Your task to perform on an android device: Open Yahoo.com Image 0: 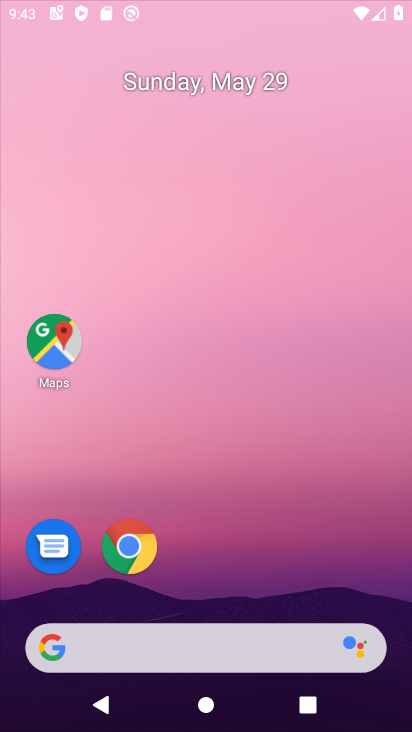
Step 0: click (227, 214)
Your task to perform on an android device: Open Yahoo.com Image 1: 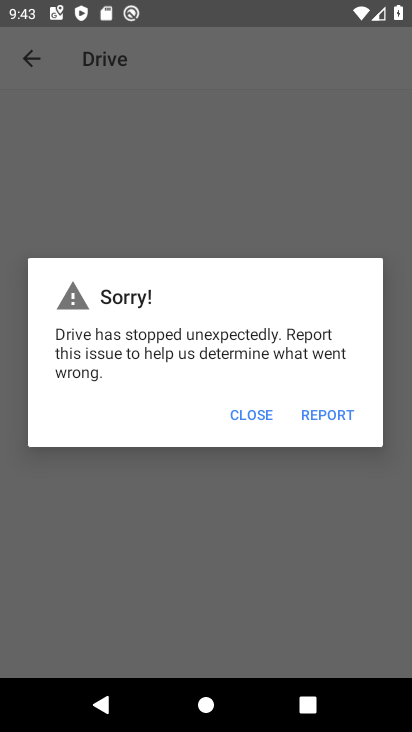
Step 1: press home button
Your task to perform on an android device: Open Yahoo.com Image 2: 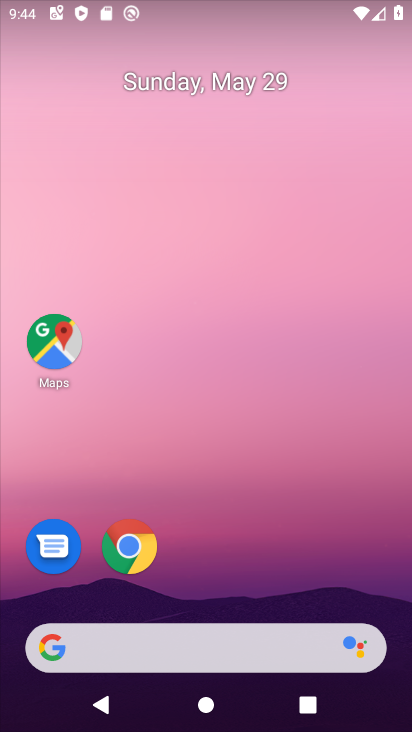
Step 2: click (150, 555)
Your task to perform on an android device: Open Yahoo.com Image 3: 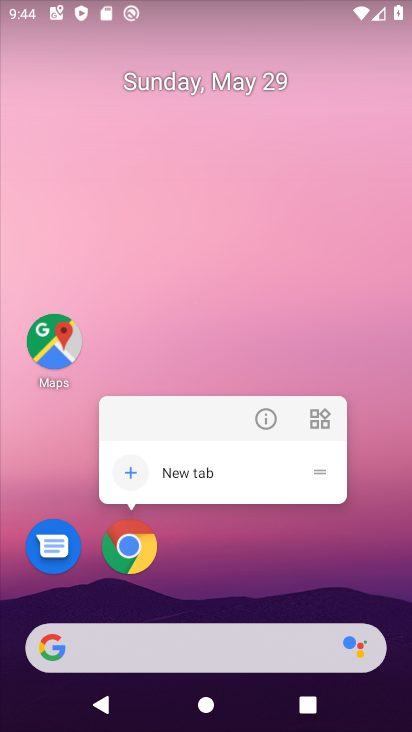
Step 3: click (150, 554)
Your task to perform on an android device: Open Yahoo.com Image 4: 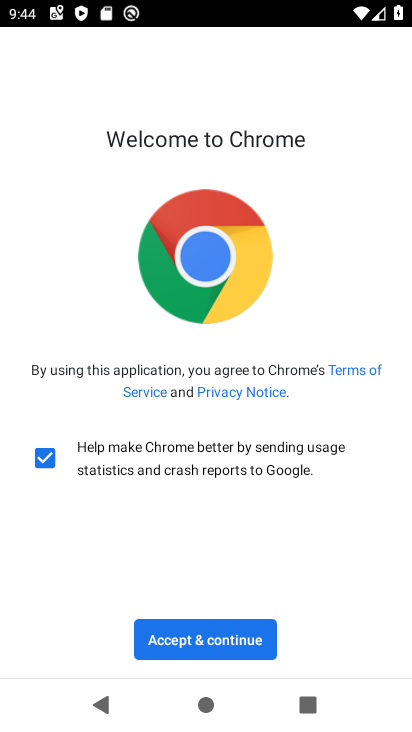
Step 4: click (174, 638)
Your task to perform on an android device: Open Yahoo.com Image 5: 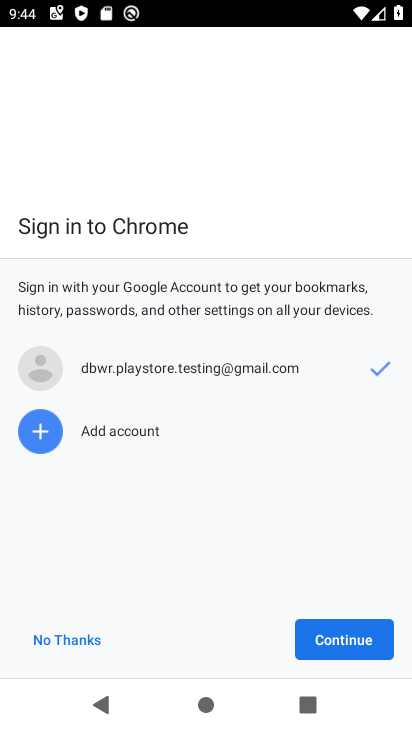
Step 5: click (326, 626)
Your task to perform on an android device: Open Yahoo.com Image 6: 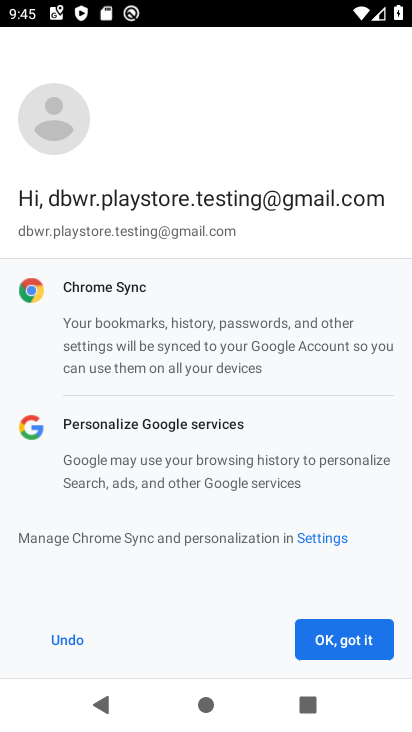
Step 6: click (326, 626)
Your task to perform on an android device: Open Yahoo.com Image 7: 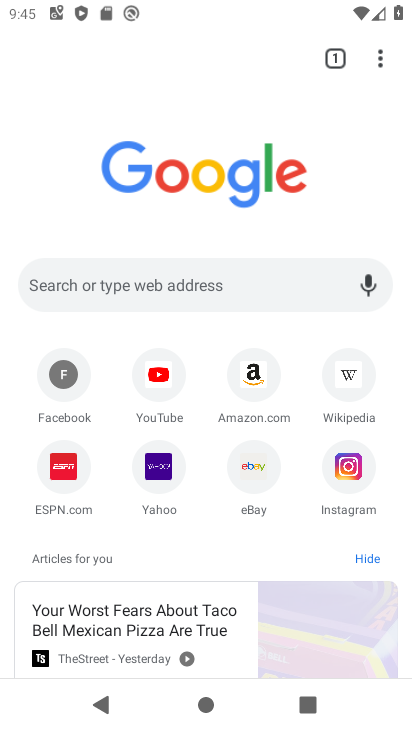
Step 7: click (157, 454)
Your task to perform on an android device: Open Yahoo.com Image 8: 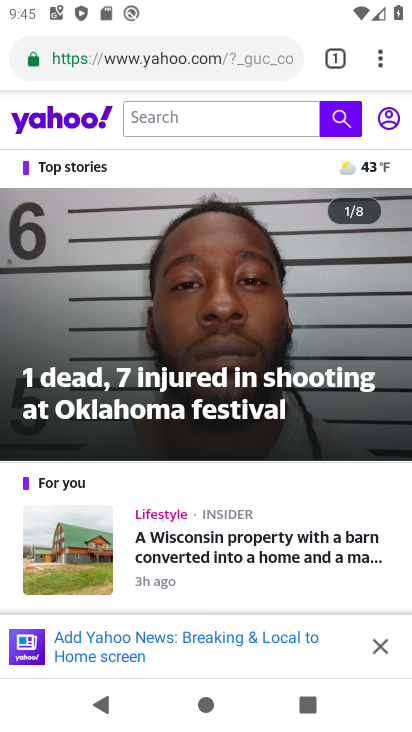
Step 8: task complete